Your task to perform on an android device: Open battery settings Image 0: 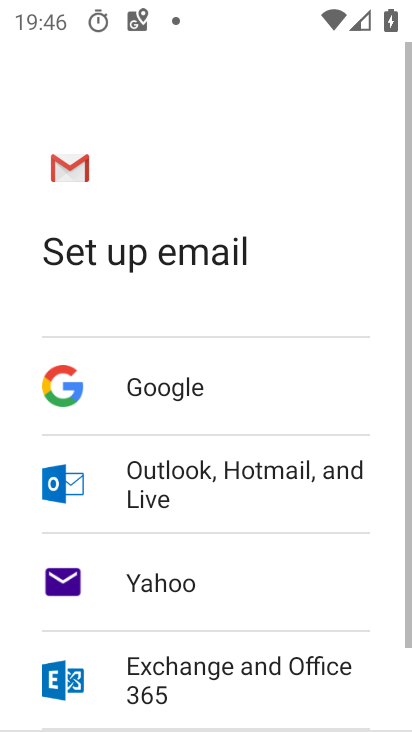
Step 0: press home button
Your task to perform on an android device: Open battery settings Image 1: 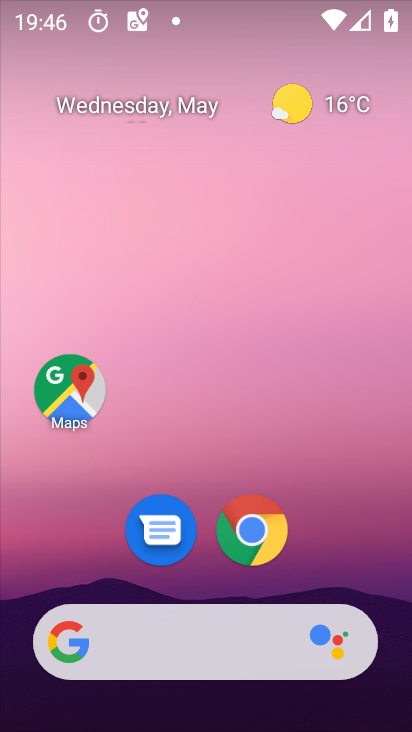
Step 1: drag from (116, 550) to (153, 240)
Your task to perform on an android device: Open battery settings Image 2: 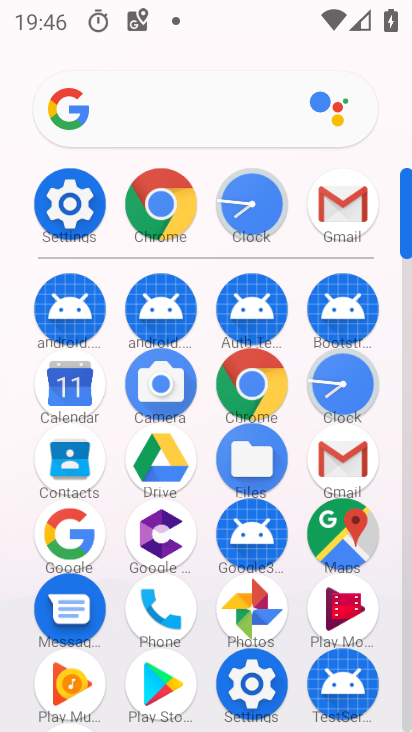
Step 2: click (237, 688)
Your task to perform on an android device: Open battery settings Image 3: 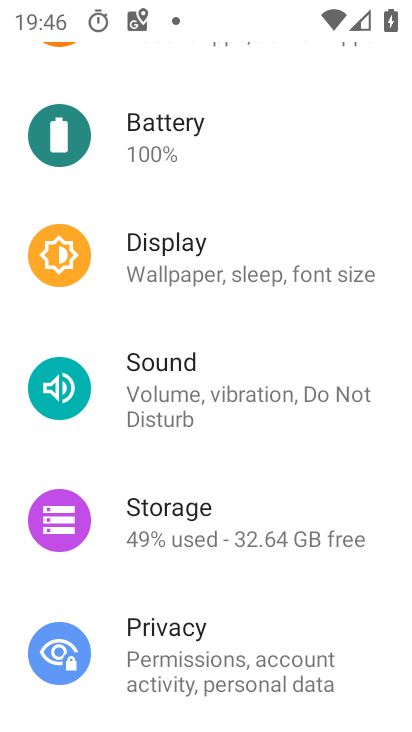
Step 3: click (174, 141)
Your task to perform on an android device: Open battery settings Image 4: 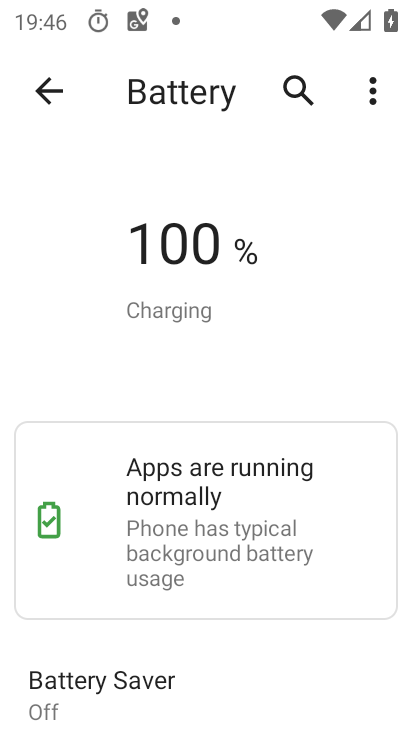
Step 4: task complete